Your task to perform on an android device: Open internet settings Image 0: 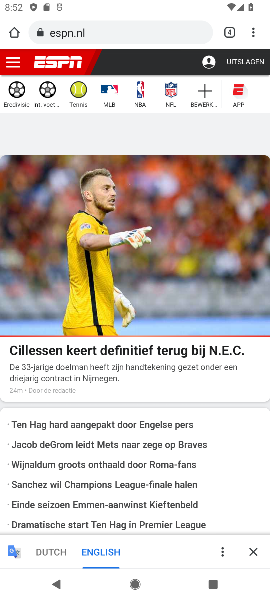
Step 0: press home button
Your task to perform on an android device: Open internet settings Image 1: 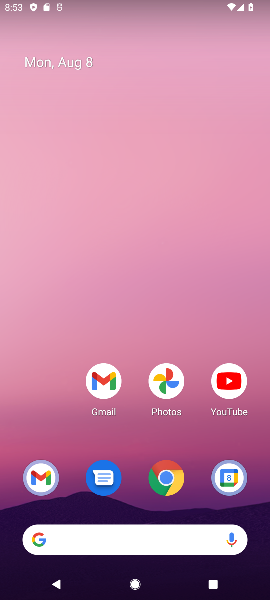
Step 1: drag from (112, 526) to (236, 127)
Your task to perform on an android device: Open internet settings Image 2: 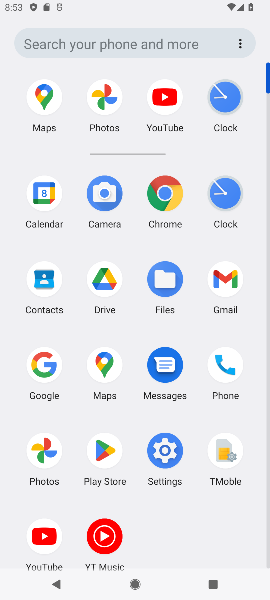
Step 2: click (164, 447)
Your task to perform on an android device: Open internet settings Image 3: 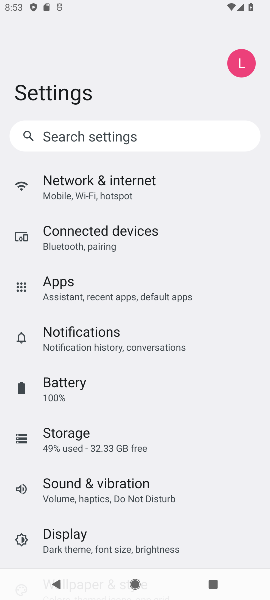
Step 3: click (127, 188)
Your task to perform on an android device: Open internet settings Image 4: 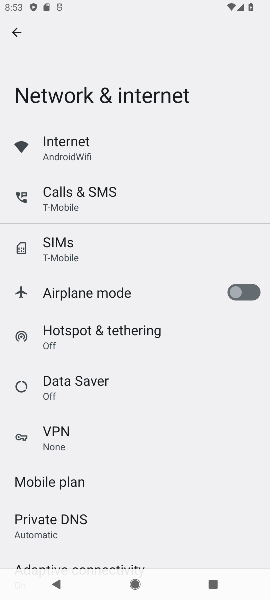
Step 4: task complete